Your task to perform on an android device: snooze an email in the gmail app Image 0: 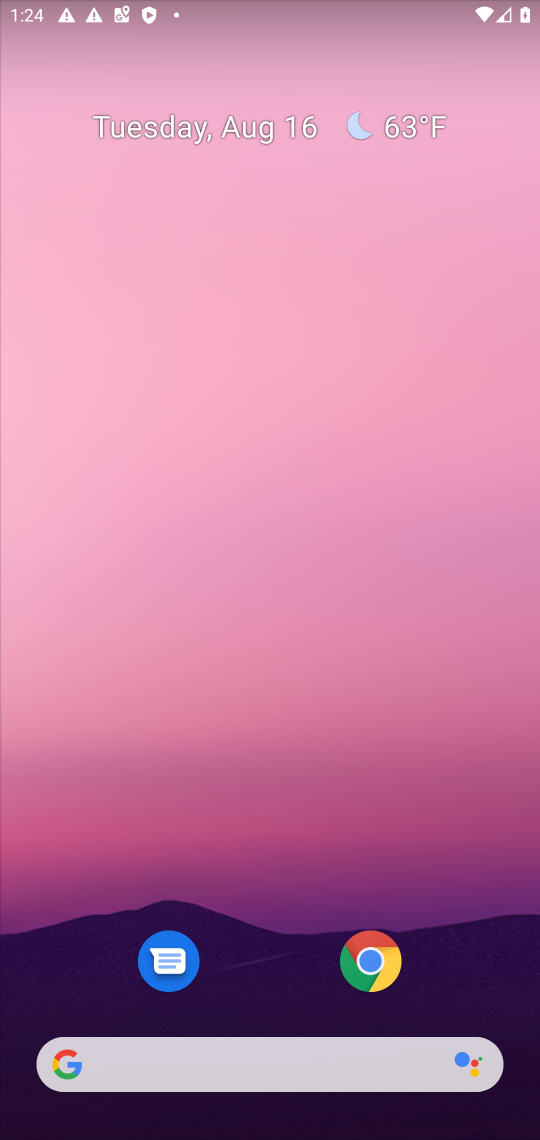
Step 0: press home button
Your task to perform on an android device: snooze an email in the gmail app Image 1: 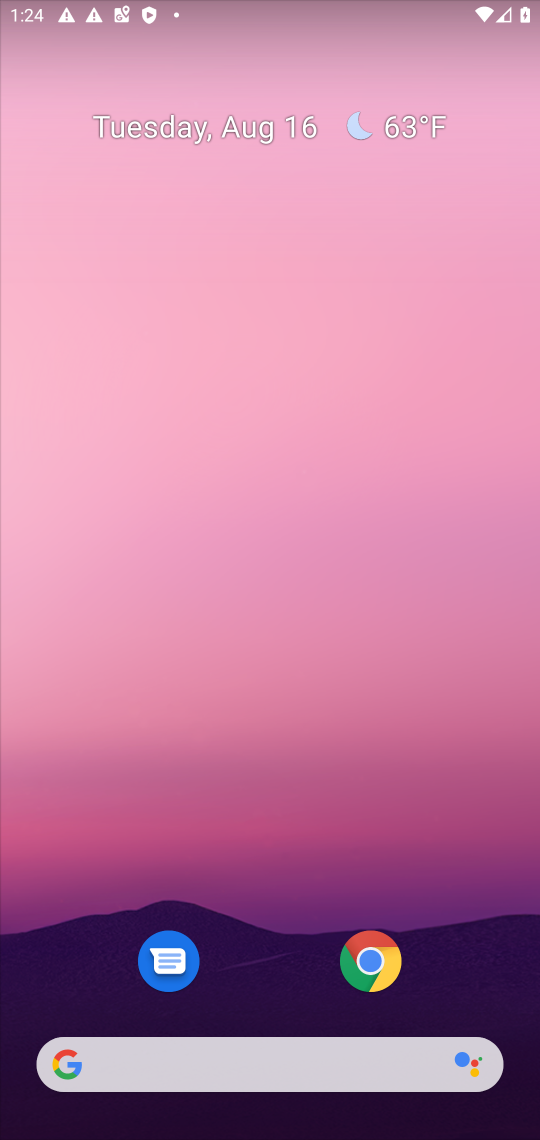
Step 1: click (334, 358)
Your task to perform on an android device: snooze an email in the gmail app Image 2: 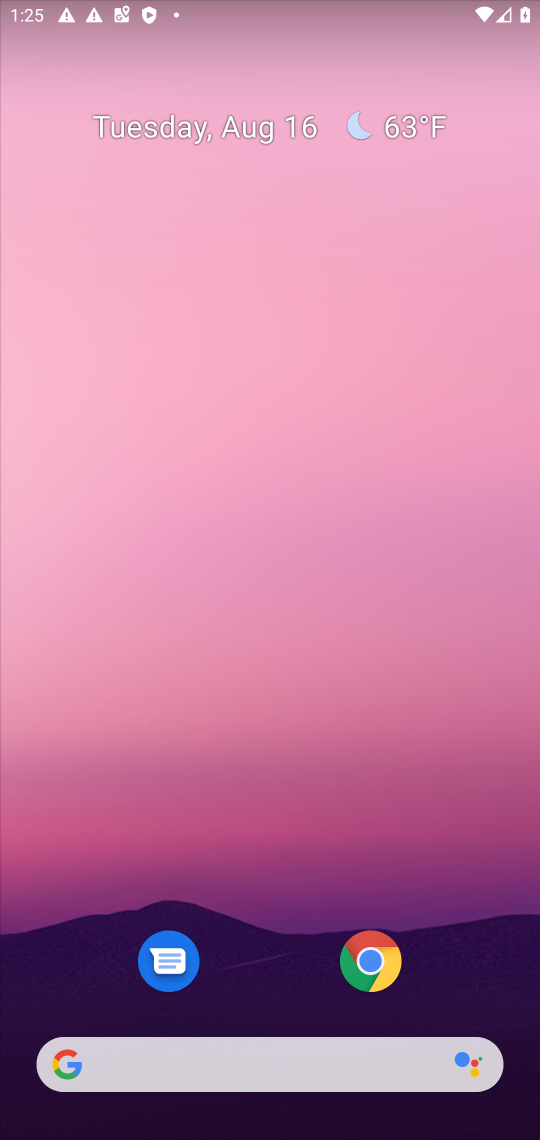
Step 2: drag from (515, 934) to (346, 43)
Your task to perform on an android device: snooze an email in the gmail app Image 3: 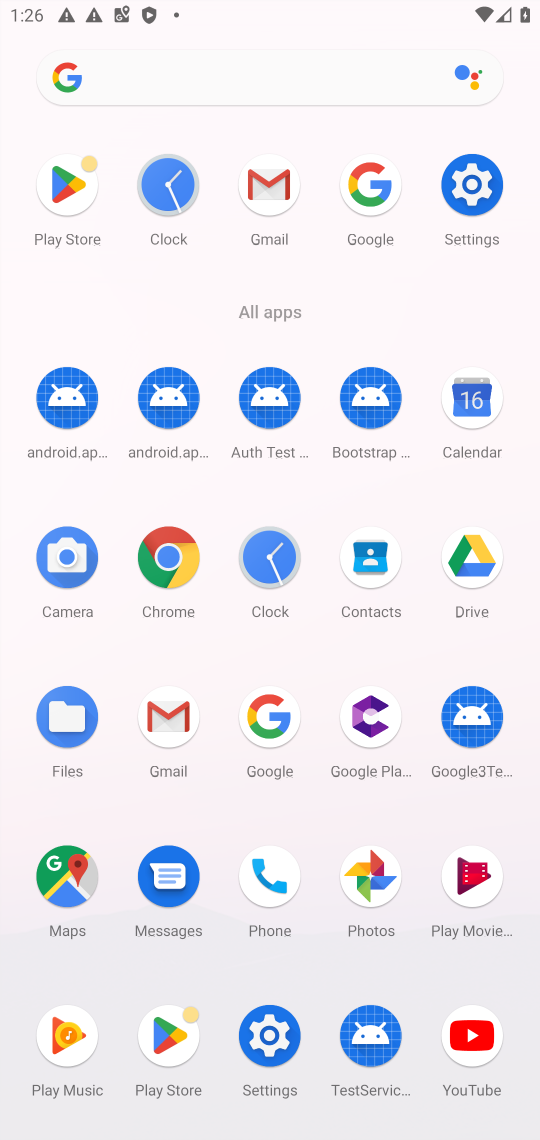
Step 3: click (168, 701)
Your task to perform on an android device: snooze an email in the gmail app Image 4: 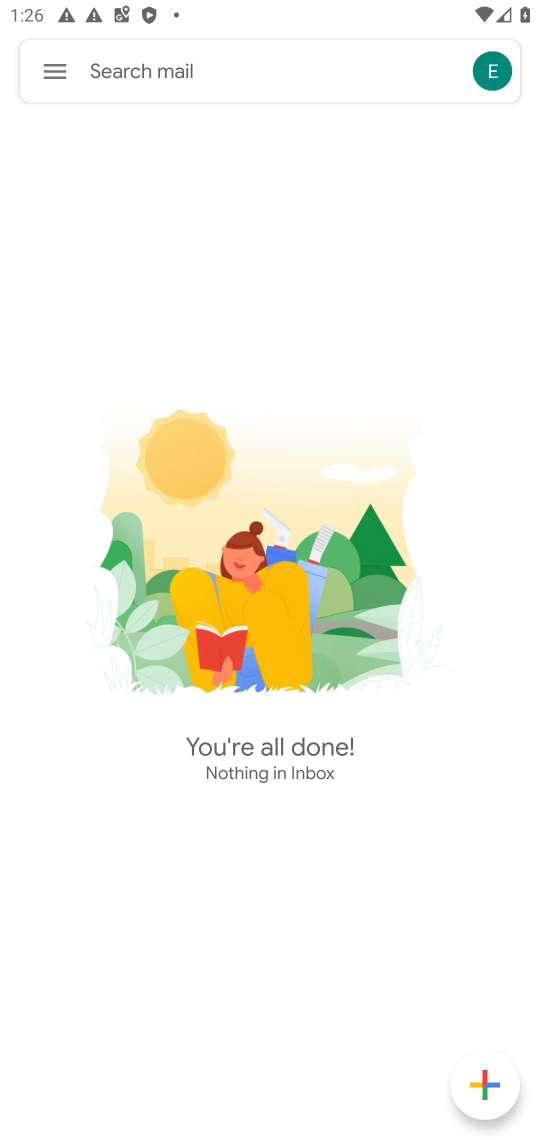
Step 4: task complete